Your task to perform on an android device: Go to eBay Image 0: 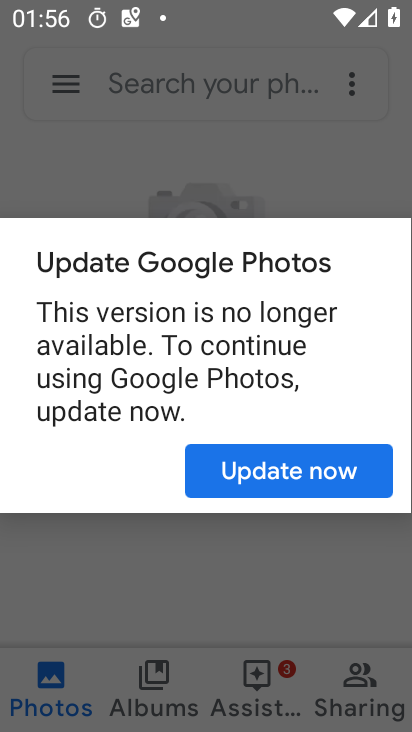
Step 0: press back button
Your task to perform on an android device: Go to eBay Image 1: 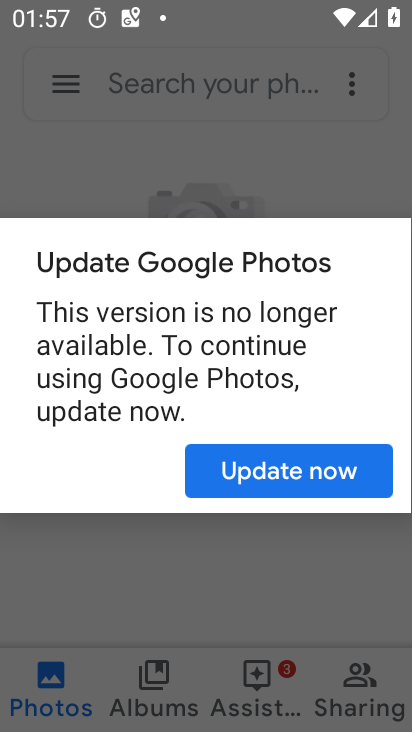
Step 1: press back button
Your task to perform on an android device: Go to eBay Image 2: 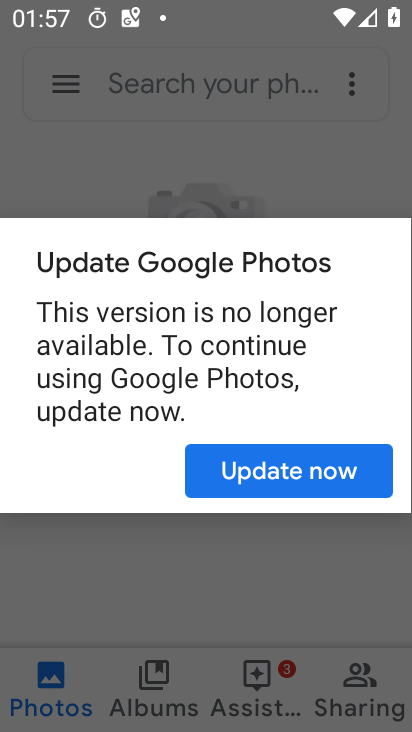
Step 2: press home button
Your task to perform on an android device: Go to eBay Image 3: 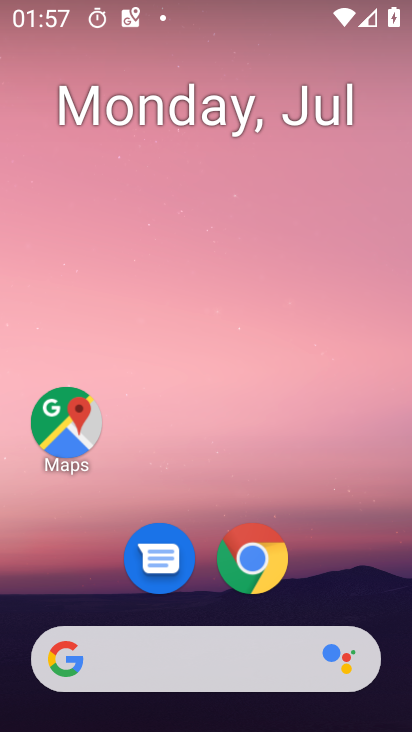
Step 3: click (251, 579)
Your task to perform on an android device: Go to eBay Image 4: 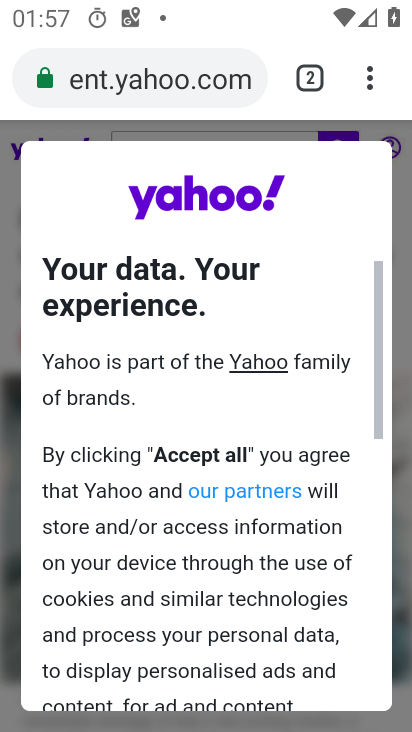
Step 4: click (304, 74)
Your task to perform on an android device: Go to eBay Image 5: 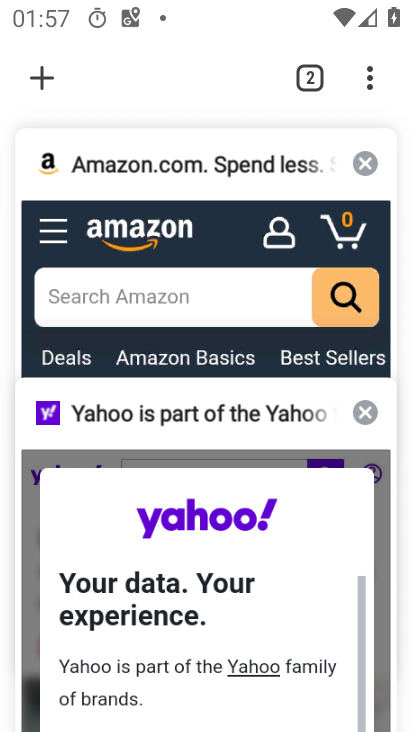
Step 5: click (52, 77)
Your task to perform on an android device: Go to eBay Image 6: 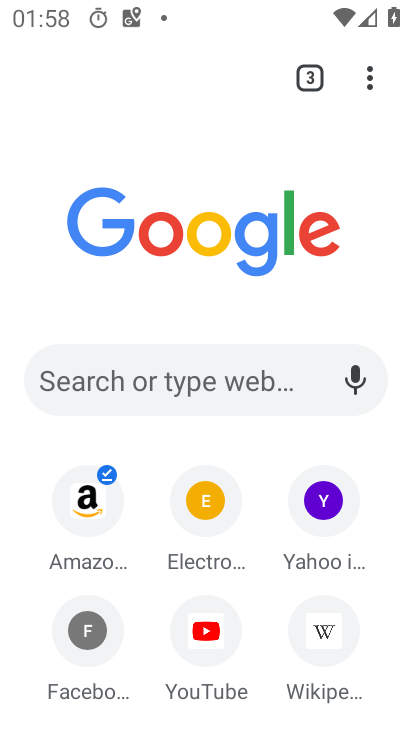
Step 6: click (219, 622)
Your task to perform on an android device: Go to eBay Image 7: 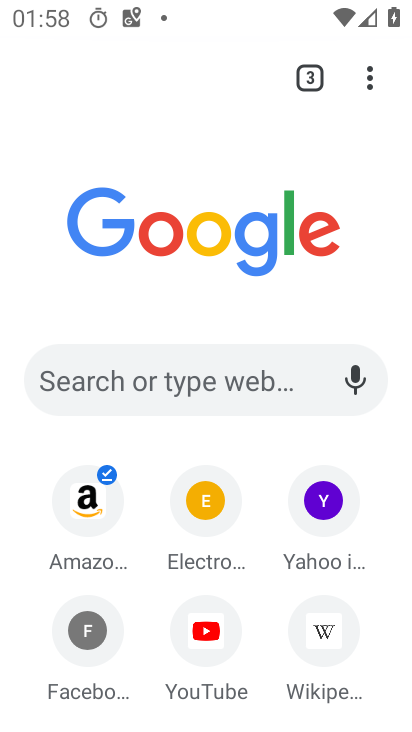
Step 7: click (118, 392)
Your task to perform on an android device: Go to eBay Image 8: 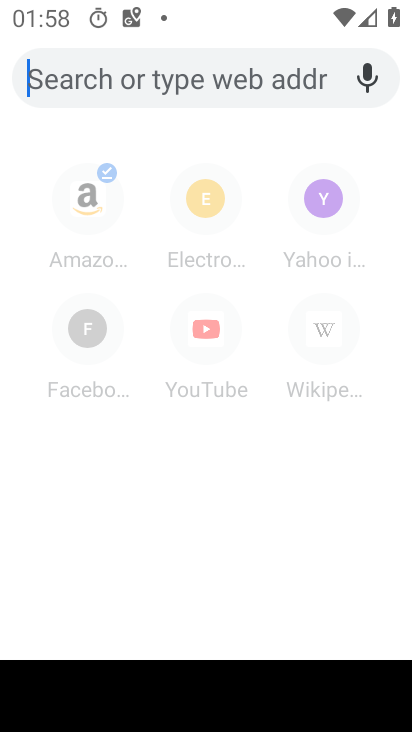
Step 8: type "ebay"
Your task to perform on an android device: Go to eBay Image 9: 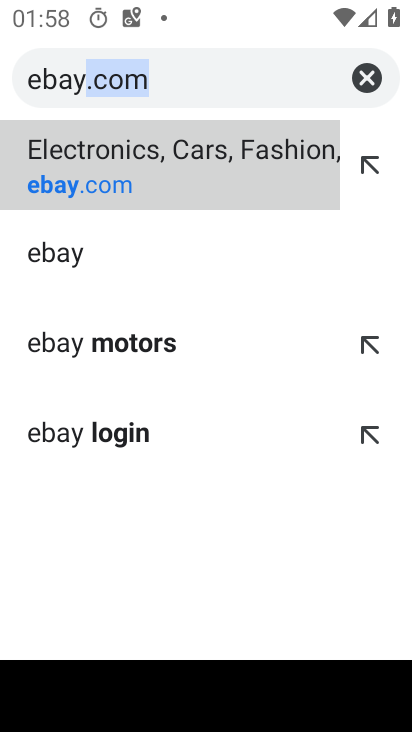
Step 9: click (108, 157)
Your task to perform on an android device: Go to eBay Image 10: 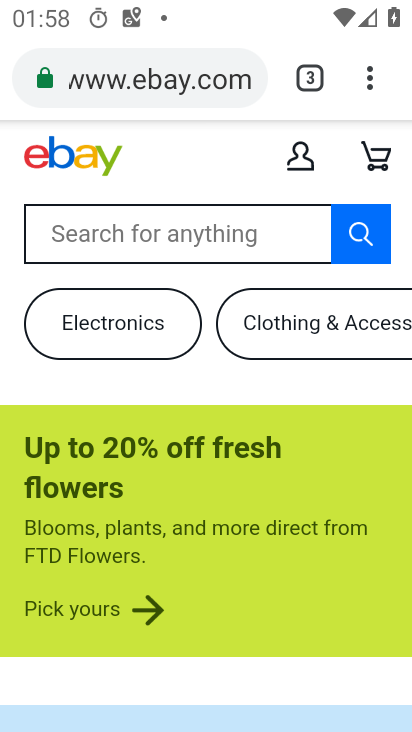
Step 10: task complete